Your task to perform on an android device: open a new tab in the chrome app Image 0: 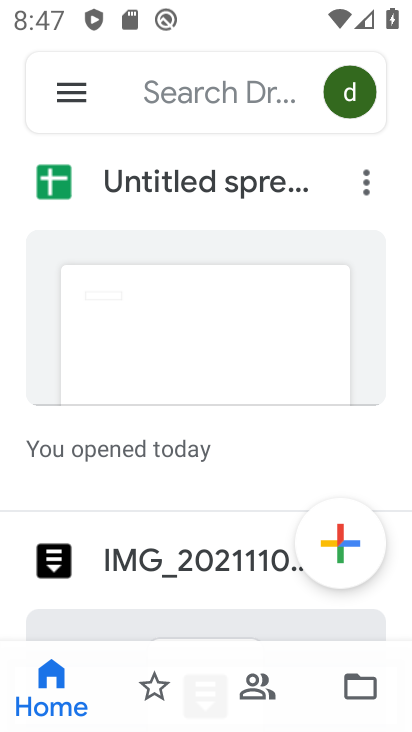
Step 0: press home button
Your task to perform on an android device: open a new tab in the chrome app Image 1: 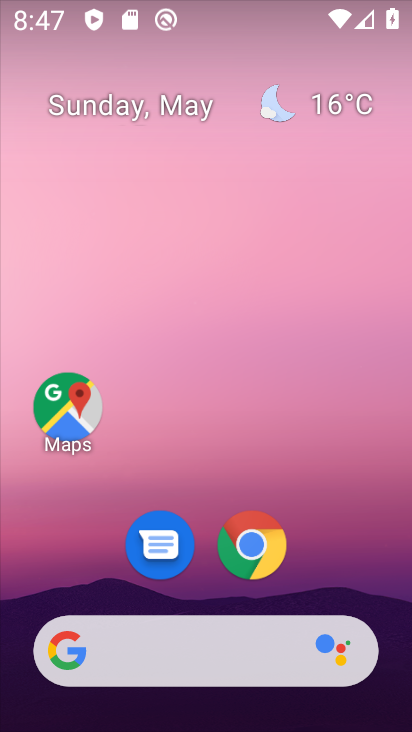
Step 1: click (256, 546)
Your task to perform on an android device: open a new tab in the chrome app Image 2: 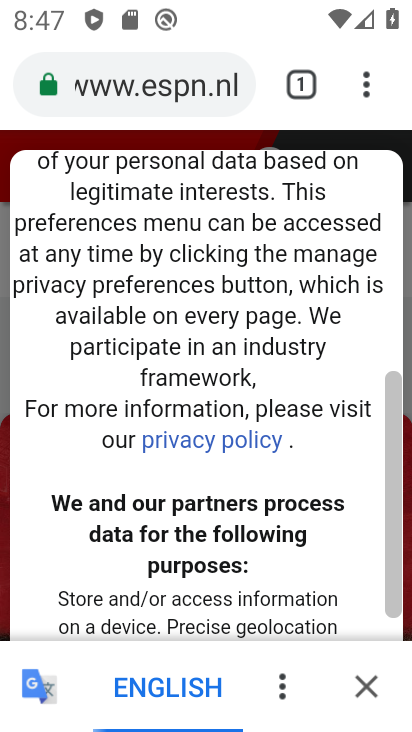
Step 2: task complete